Your task to perform on an android device: find photos in the google photos app Image 0: 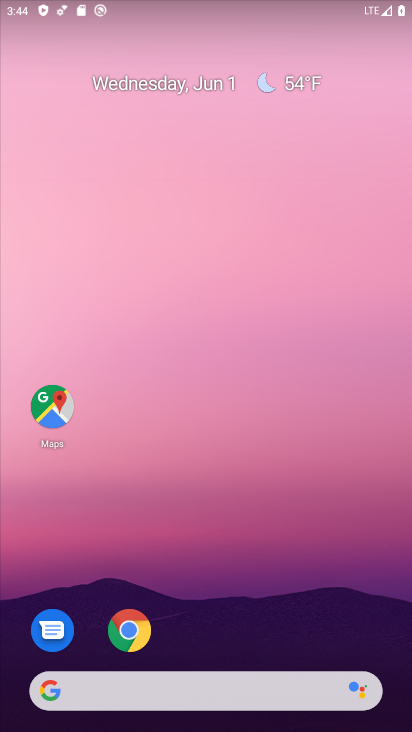
Step 0: drag from (237, 596) to (207, 39)
Your task to perform on an android device: find photos in the google photos app Image 1: 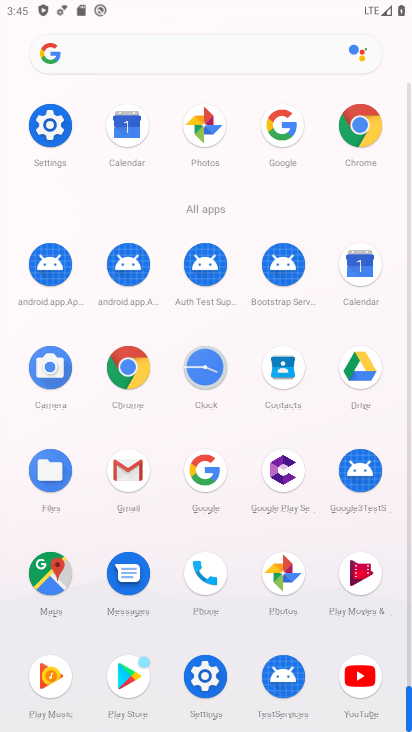
Step 1: click (282, 575)
Your task to perform on an android device: find photos in the google photos app Image 2: 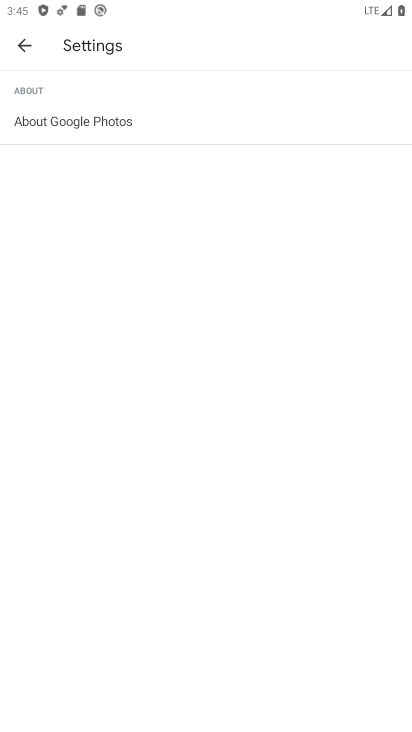
Step 2: click (32, 41)
Your task to perform on an android device: find photos in the google photos app Image 3: 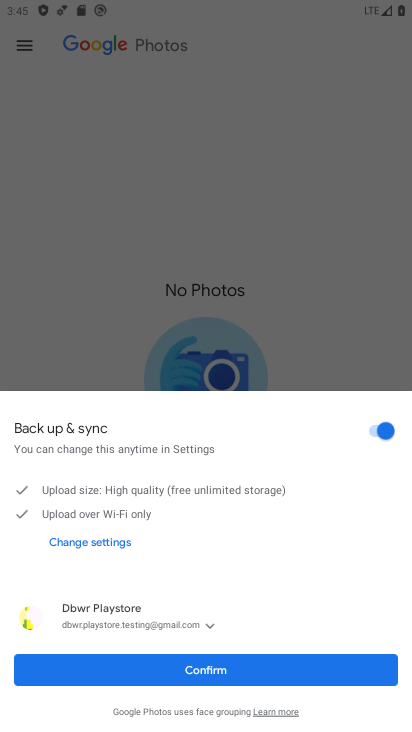
Step 3: click (197, 662)
Your task to perform on an android device: find photos in the google photos app Image 4: 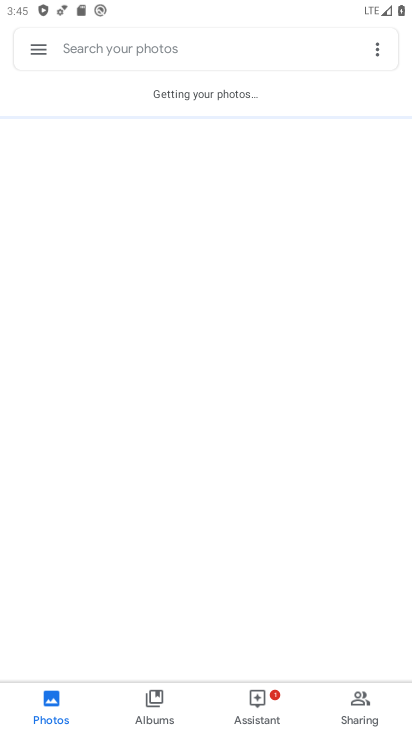
Step 4: click (172, 706)
Your task to perform on an android device: find photos in the google photos app Image 5: 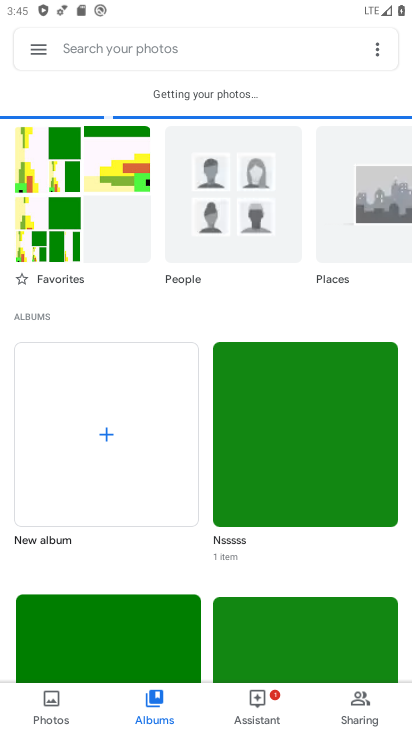
Step 5: click (62, 691)
Your task to perform on an android device: find photos in the google photos app Image 6: 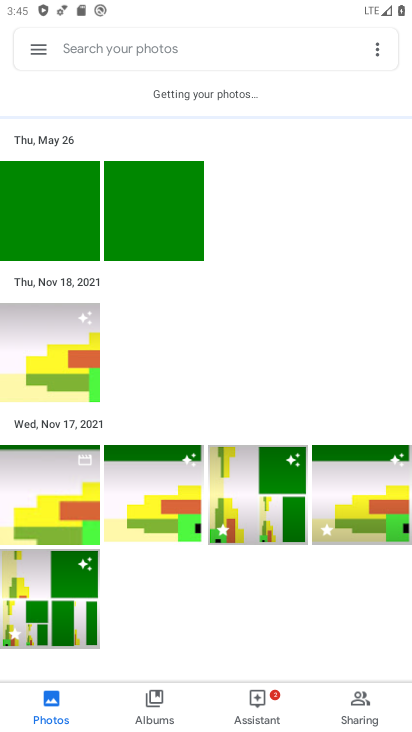
Step 6: task complete